Your task to perform on an android device: Open the phone app and click the voicemail tab. Image 0: 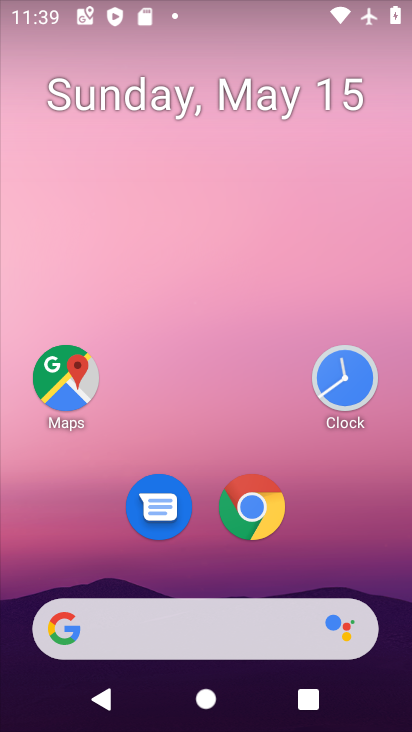
Step 0: drag from (285, 569) to (296, 196)
Your task to perform on an android device: Open the phone app and click the voicemail tab. Image 1: 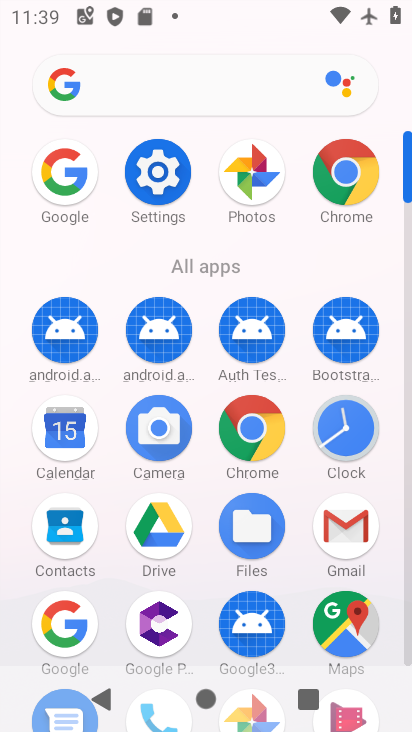
Step 1: drag from (313, 652) to (317, 350)
Your task to perform on an android device: Open the phone app and click the voicemail tab. Image 2: 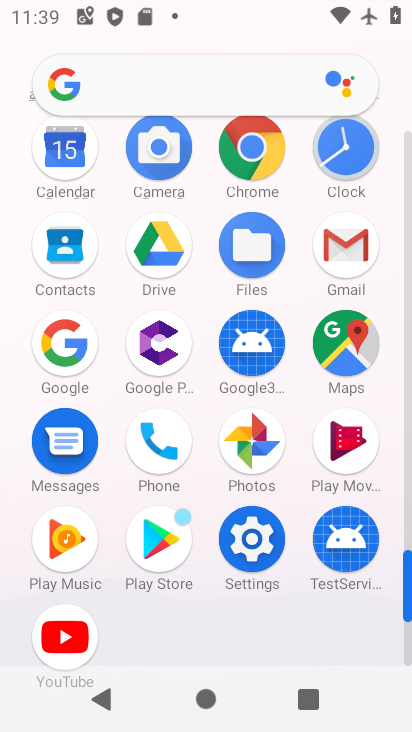
Step 2: click (167, 452)
Your task to perform on an android device: Open the phone app and click the voicemail tab. Image 3: 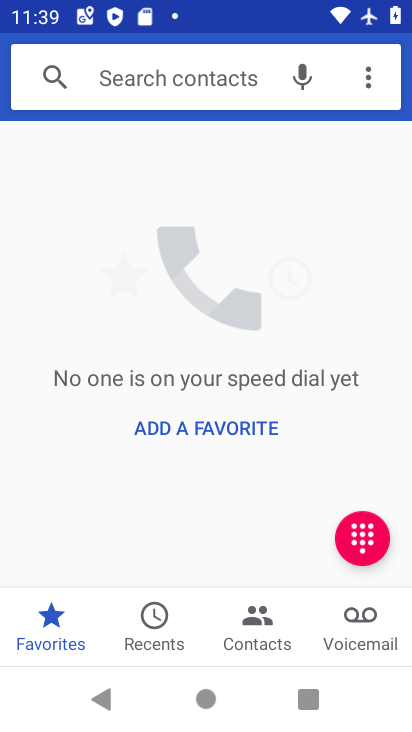
Step 3: click (351, 629)
Your task to perform on an android device: Open the phone app and click the voicemail tab. Image 4: 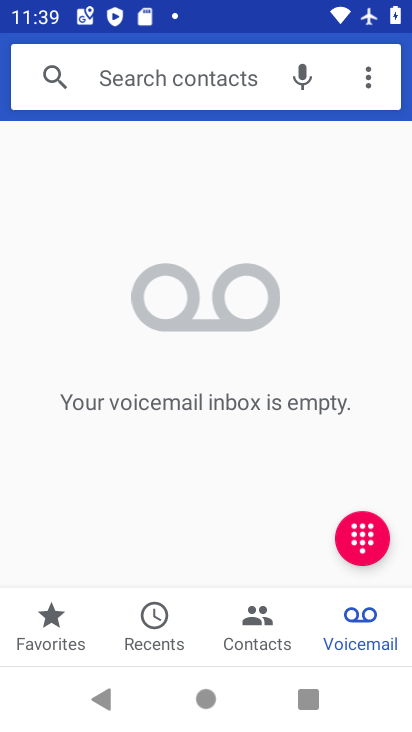
Step 4: task complete